Your task to perform on an android device: change the clock display to analog Image 0: 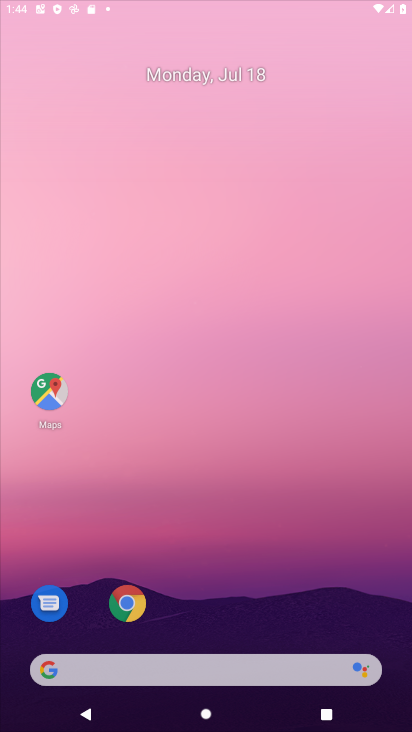
Step 0: click (199, 115)
Your task to perform on an android device: change the clock display to analog Image 1: 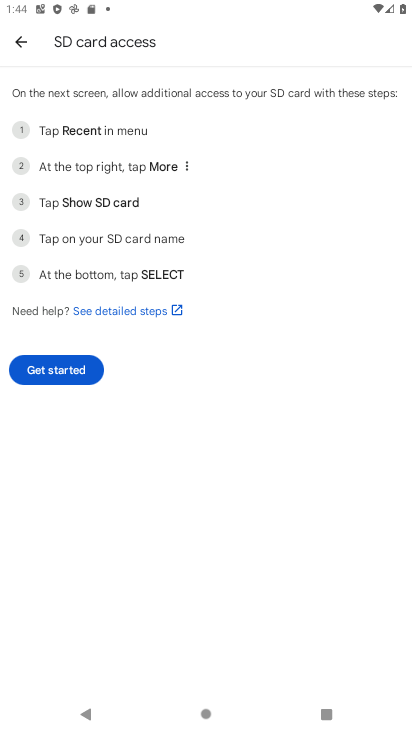
Step 1: press home button
Your task to perform on an android device: change the clock display to analog Image 2: 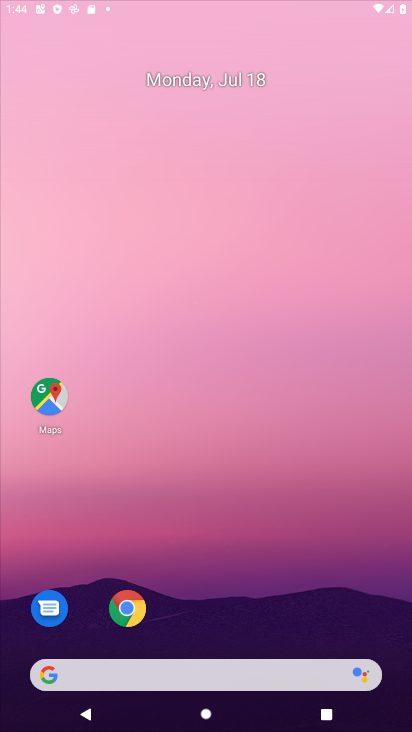
Step 2: drag from (389, 685) to (247, 44)
Your task to perform on an android device: change the clock display to analog Image 3: 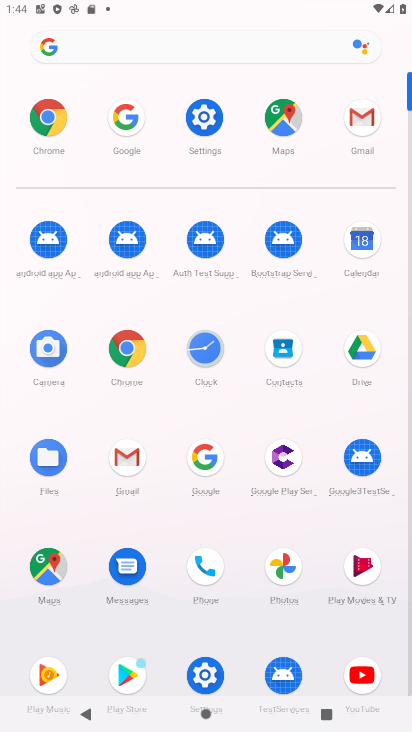
Step 3: click (198, 341)
Your task to perform on an android device: change the clock display to analog Image 4: 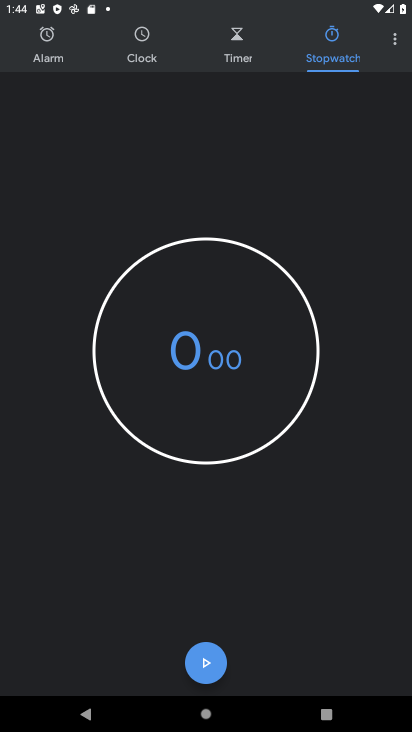
Step 4: click (388, 41)
Your task to perform on an android device: change the clock display to analog Image 5: 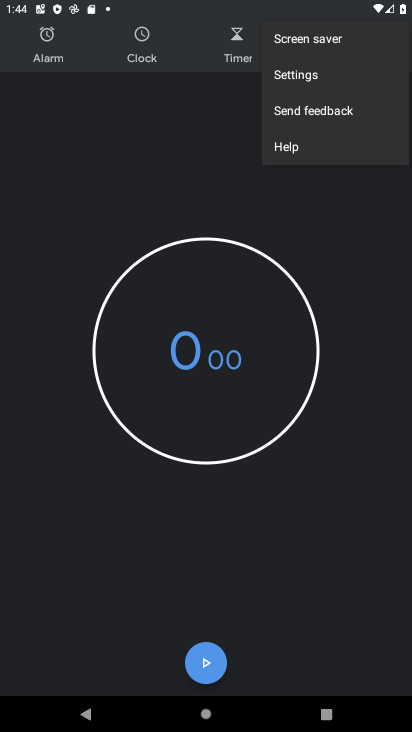
Step 5: click (323, 88)
Your task to perform on an android device: change the clock display to analog Image 6: 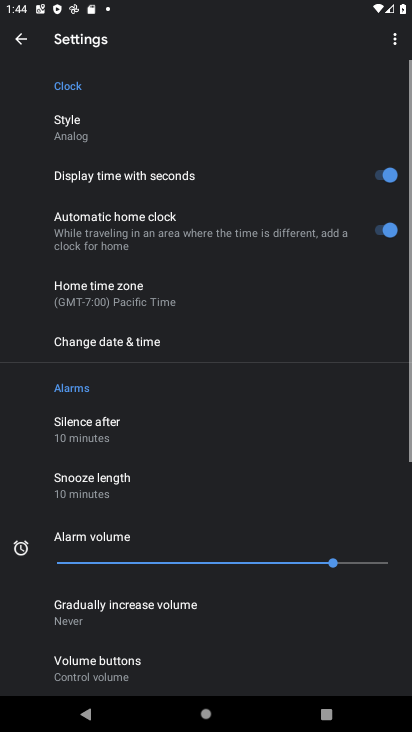
Step 6: click (87, 136)
Your task to perform on an android device: change the clock display to analog Image 7: 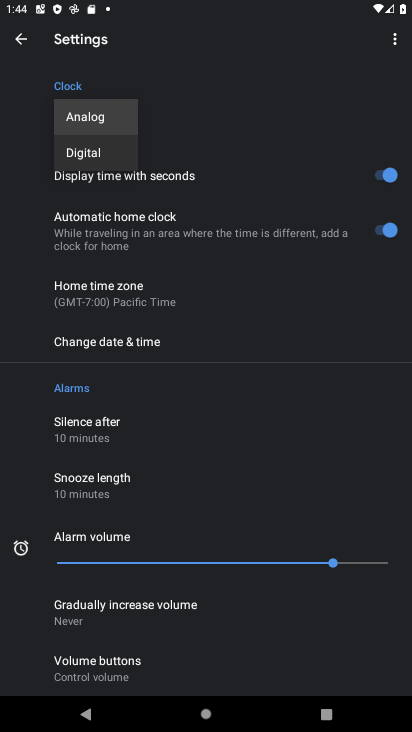
Step 7: click (107, 121)
Your task to perform on an android device: change the clock display to analog Image 8: 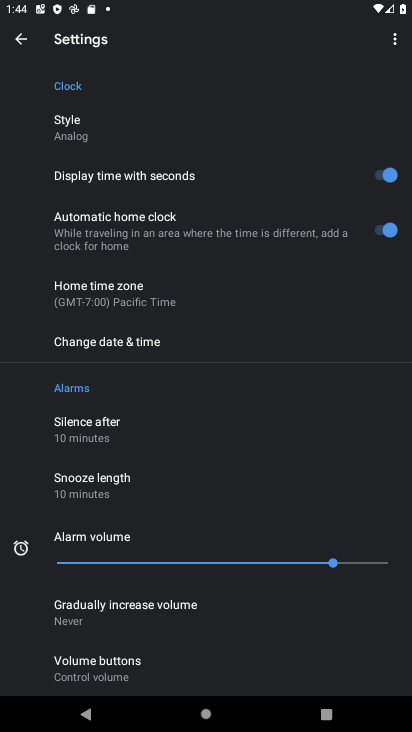
Step 8: task complete